Your task to perform on an android device: Go to Android settings Image 0: 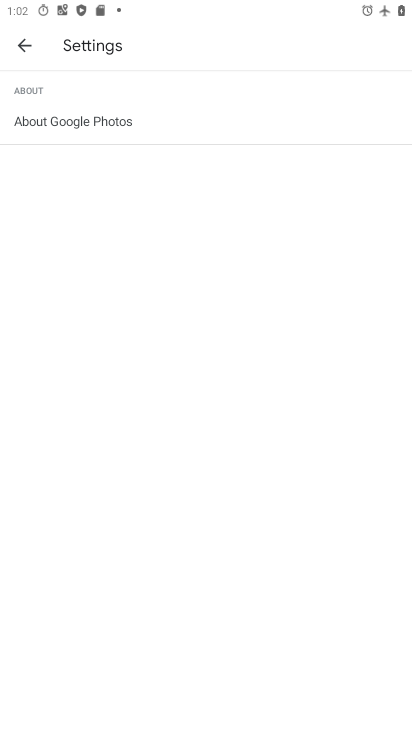
Step 0: press home button
Your task to perform on an android device: Go to Android settings Image 1: 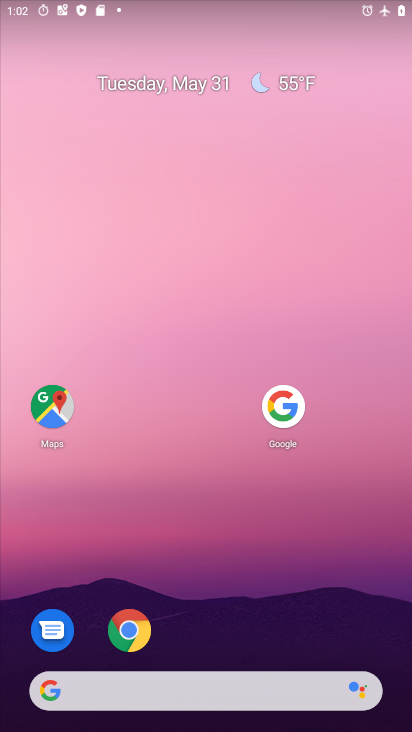
Step 1: drag from (228, 700) to (315, 116)
Your task to perform on an android device: Go to Android settings Image 2: 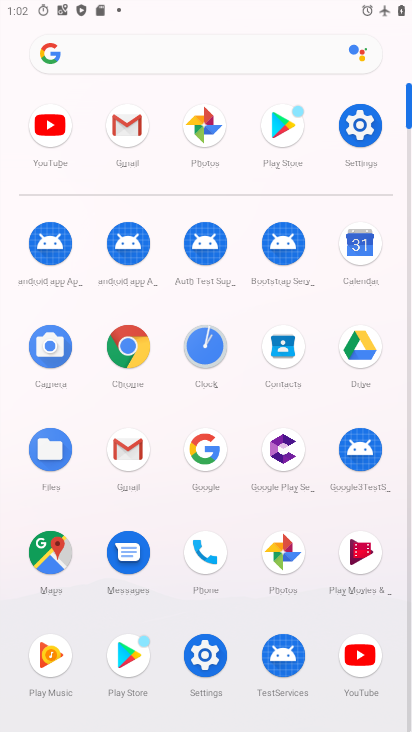
Step 2: click (360, 132)
Your task to perform on an android device: Go to Android settings Image 3: 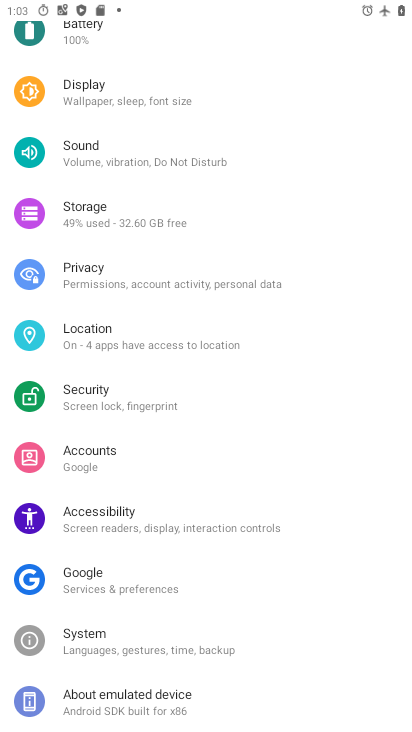
Step 3: task complete